Your task to perform on an android device: How much does the Samsung TV cost? Image 0: 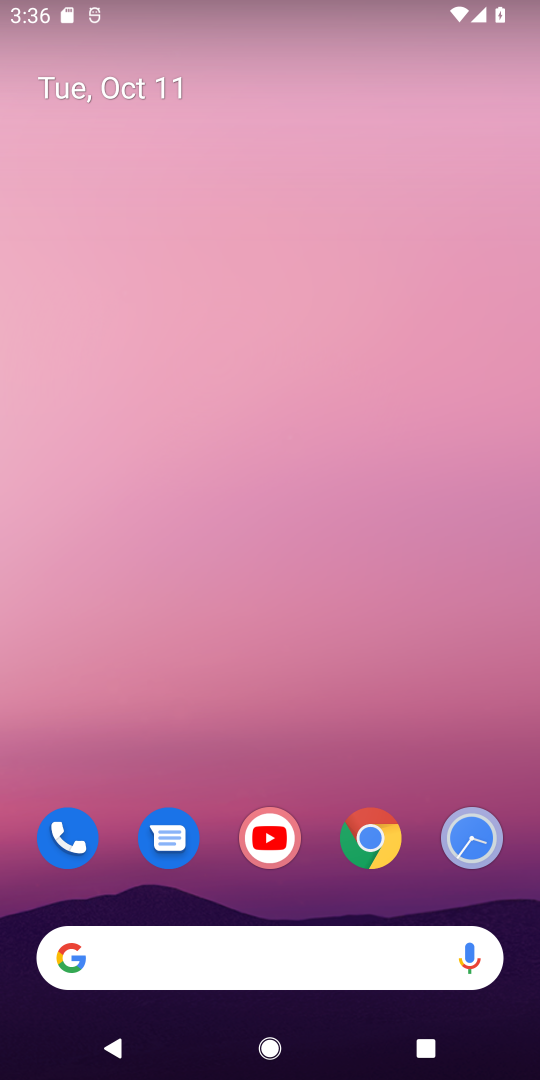
Step 0: click (304, 953)
Your task to perform on an android device: How much does the Samsung TV cost? Image 1: 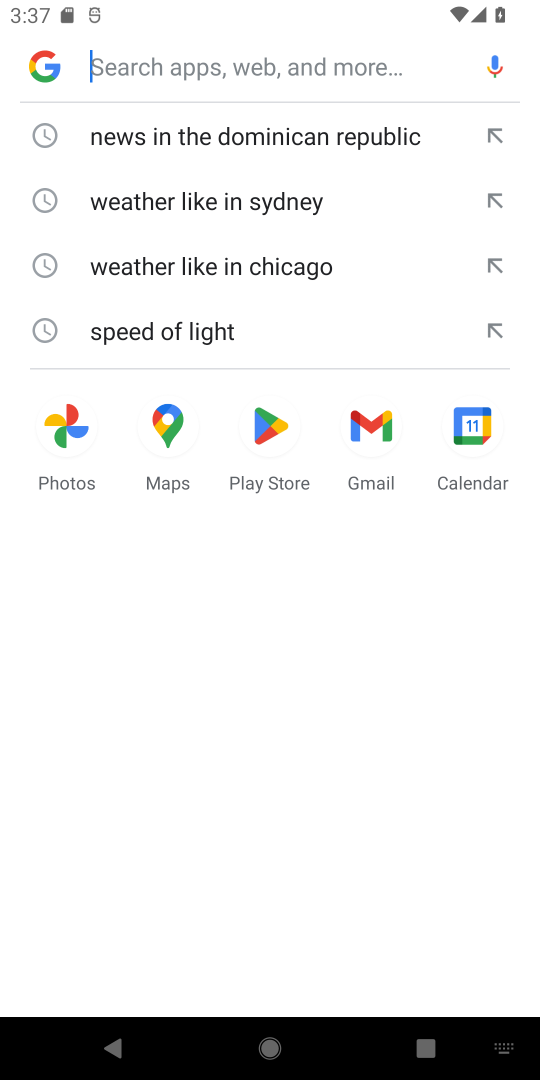
Step 1: type "Samsung TV cost"
Your task to perform on an android device: How much does the Samsung TV cost? Image 2: 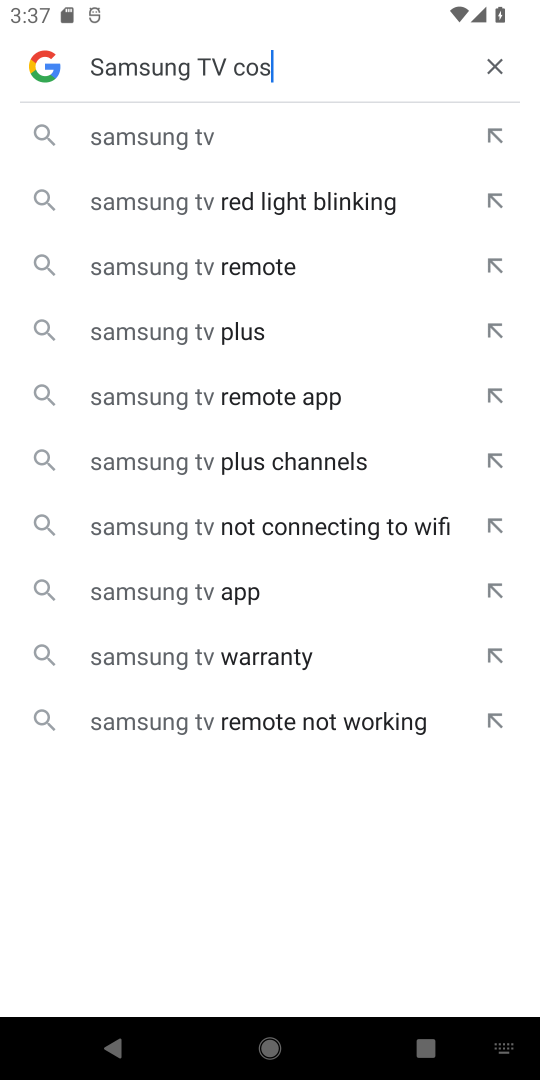
Step 2: type ""
Your task to perform on an android device: How much does the Samsung TV cost? Image 3: 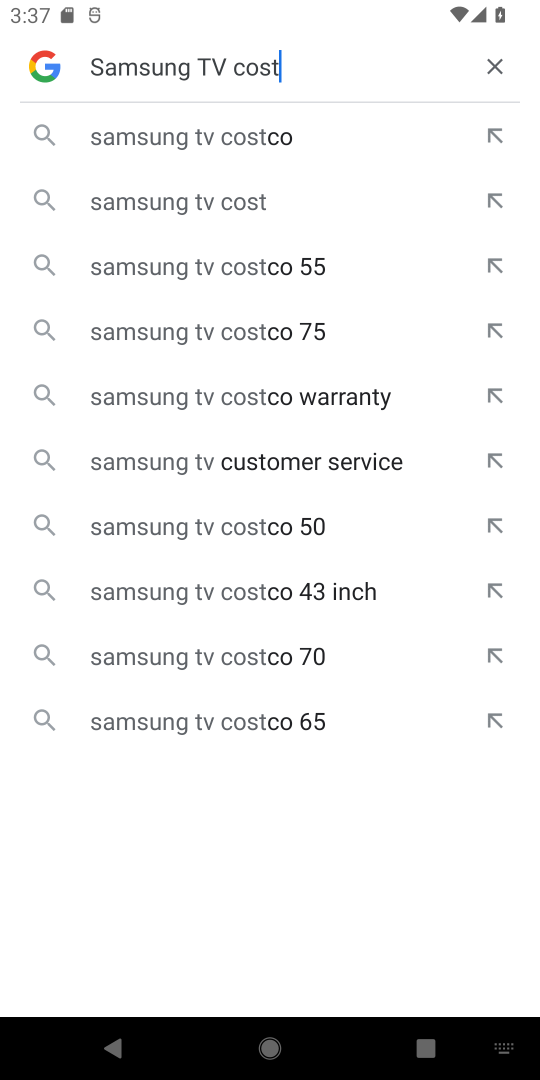
Step 3: click (181, 197)
Your task to perform on an android device: How much does the Samsung TV cost? Image 4: 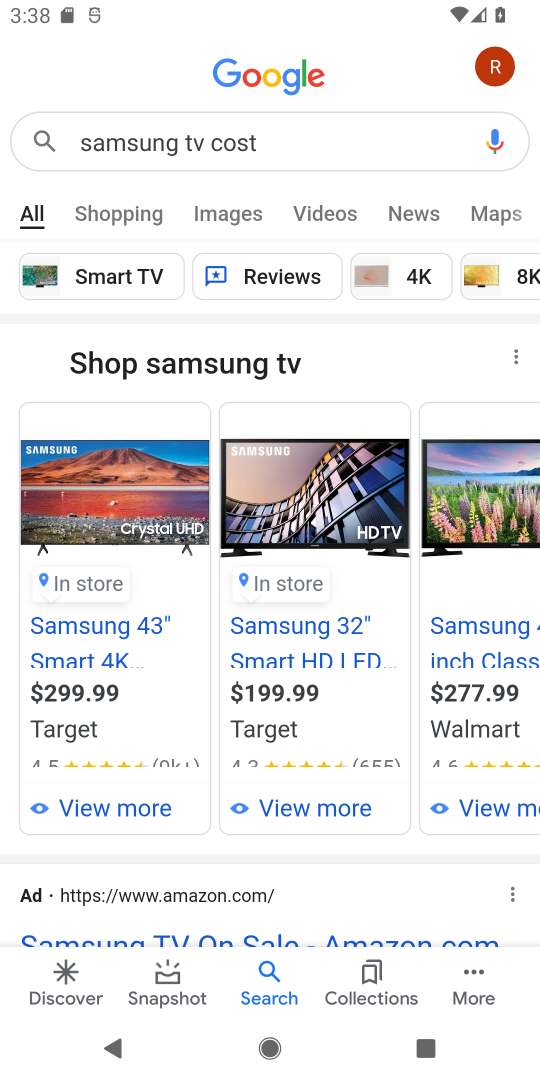
Step 4: task complete